Your task to perform on an android device: Open the map Image 0: 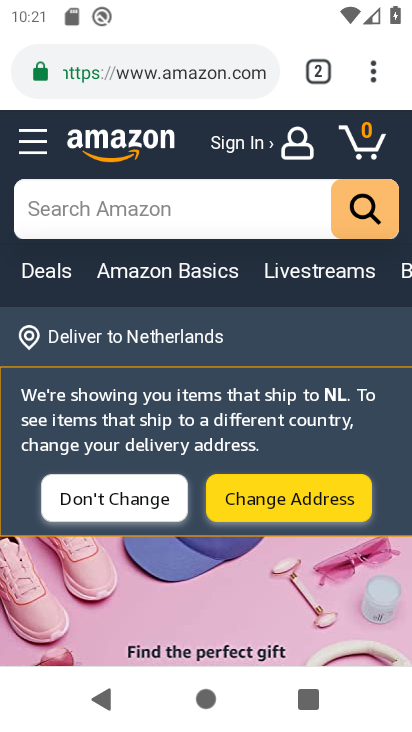
Step 0: press home button
Your task to perform on an android device: Open the map Image 1: 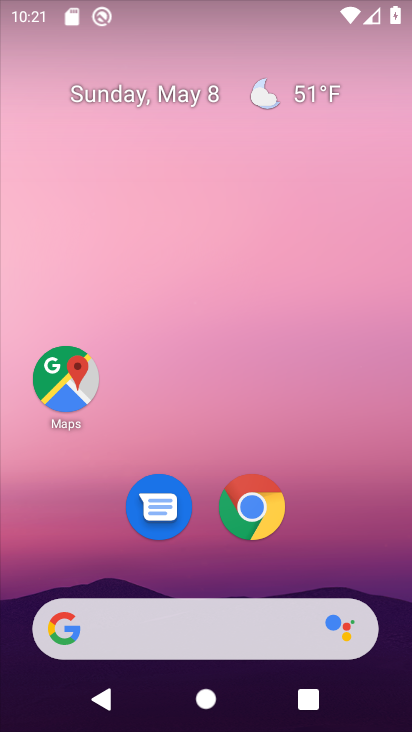
Step 1: click (62, 370)
Your task to perform on an android device: Open the map Image 2: 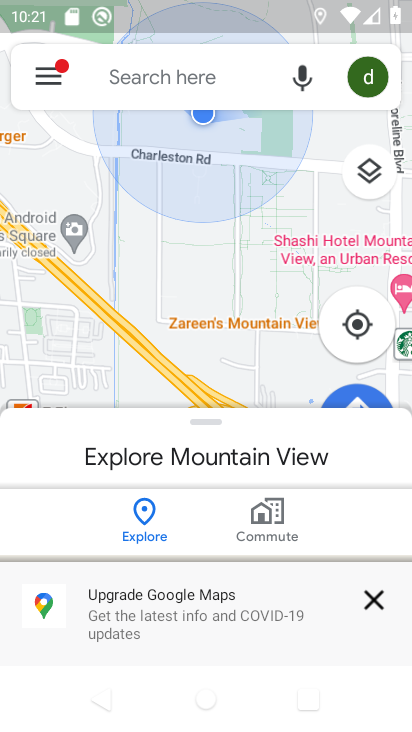
Step 2: task complete